Your task to perform on an android device: Is it going to rain tomorrow? Image 0: 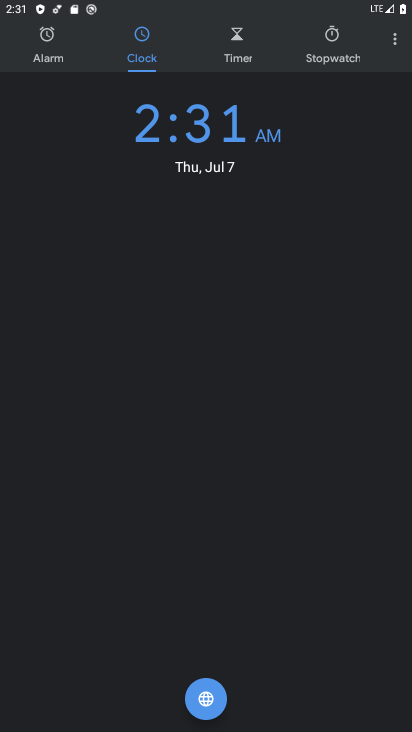
Step 0: press home button
Your task to perform on an android device: Is it going to rain tomorrow? Image 1: 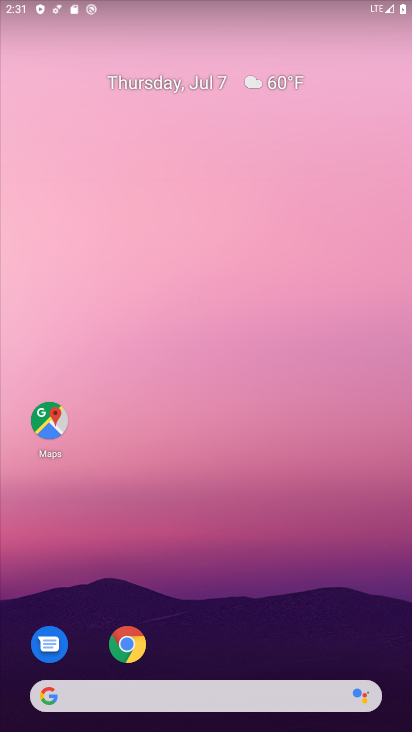
Step 1: drag from (186, 685) to (165, 158)
Your task to perform on an android device: Is it going to rain tomorrow? Image 2: 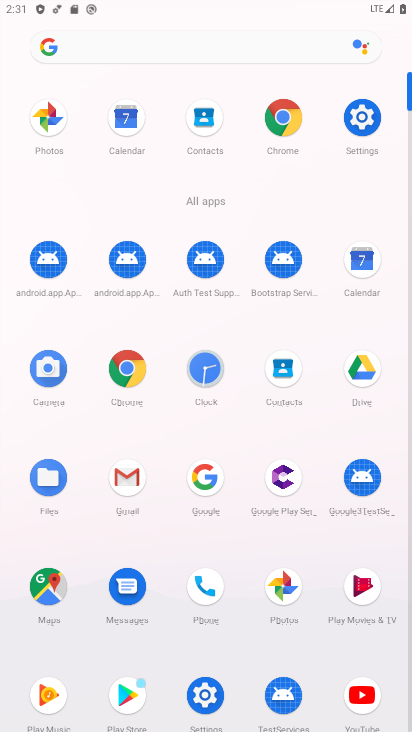
Step 2: click (129, 373)
Your task to perform on an android device: Is it going to rain tomorrow? Image 3: 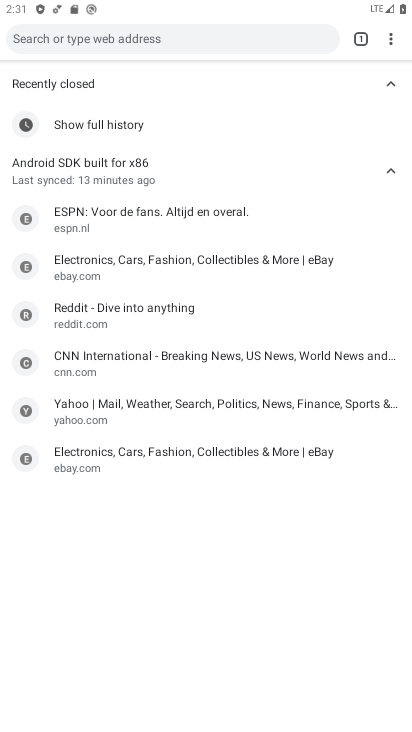
Step 3: click (149, 26)
Your task to perform on an android device: Is it going to rain tomorrow? Image 4: 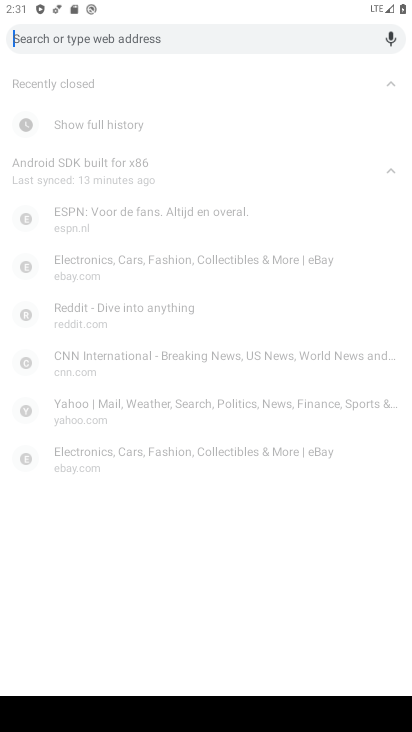
Step 4: type "weather tomorrow"
Your task to perform on an android device: Is it going to rain tomorrow? Image 5: 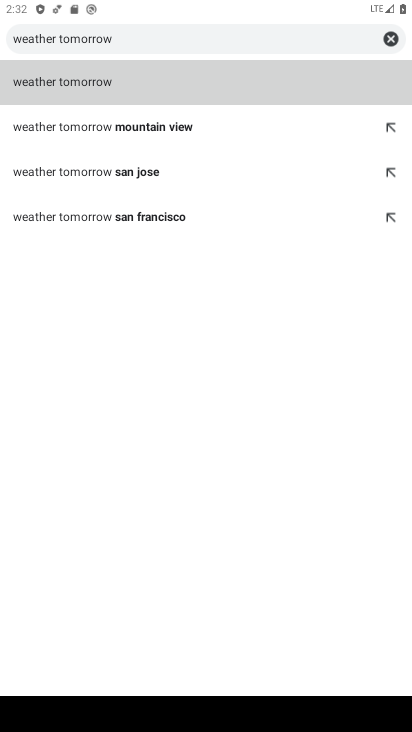
Step 5: click (85, 74)
Your task to perform on an android device: Is it going to rain tomorrow? Image 6: 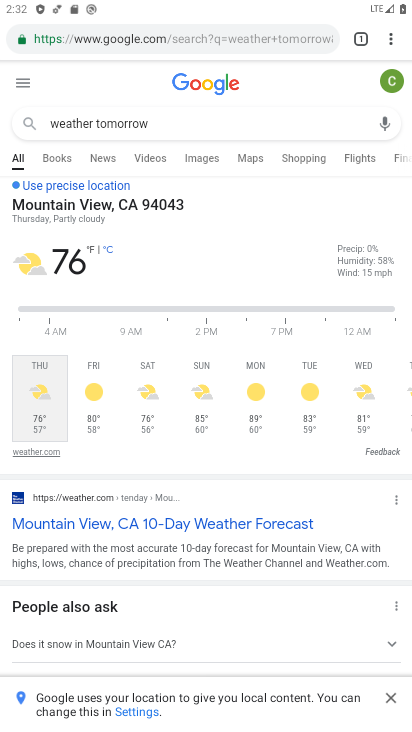
Step 6: click (98, 379)
Your task to perform on an android device: Is it going to rain tomorrow? Image 7: 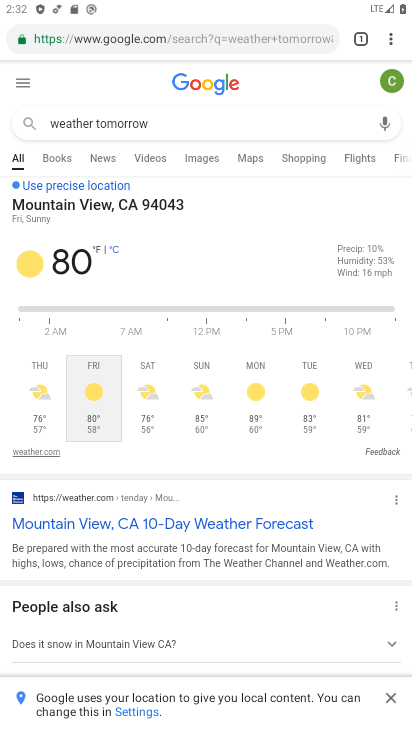
Step 7: task complete